Your task to perform on an android device: Go to Maps Image 0: 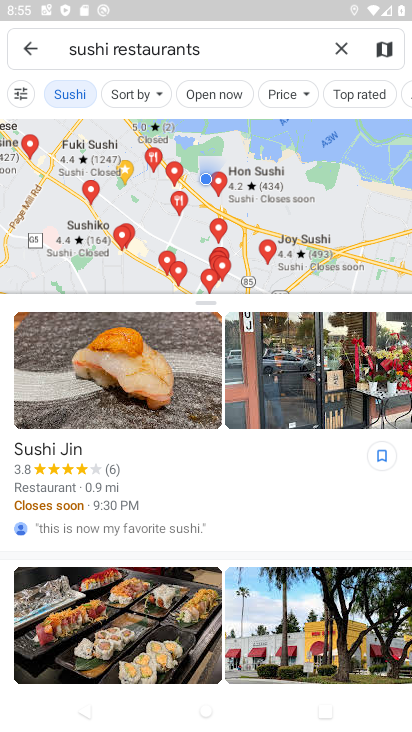
Step 0: press home button
Your task to perform on an android device: Go to Maps Image 1: 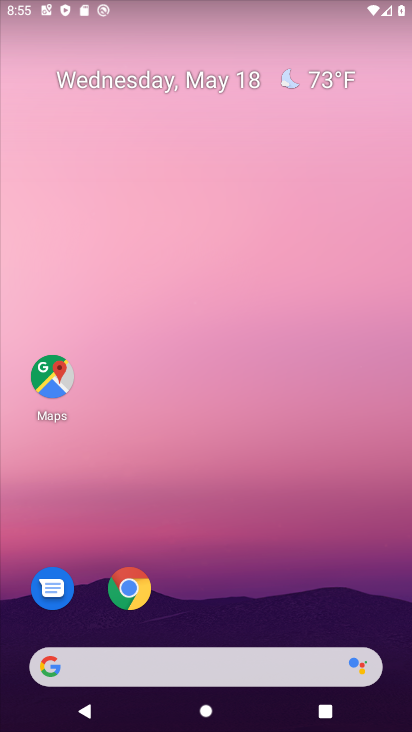
Step 1: drag from (343, 576) to (323, 149)
Your task to perform on an android device: Go to Maps Image 2: 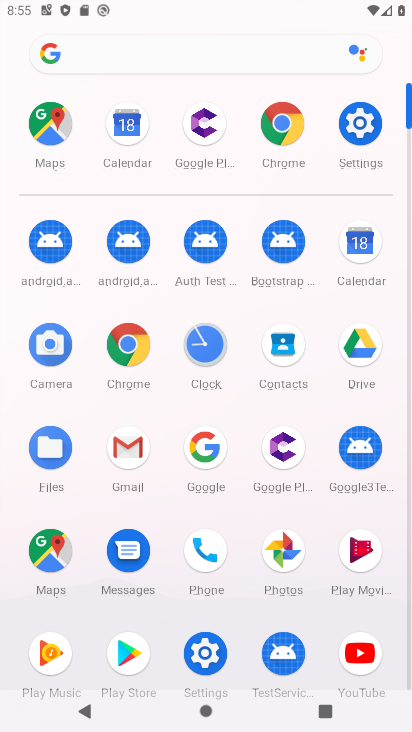
Step 2: click (50, 545)
Your task to perform on an android device: Go to Maps Image 3: 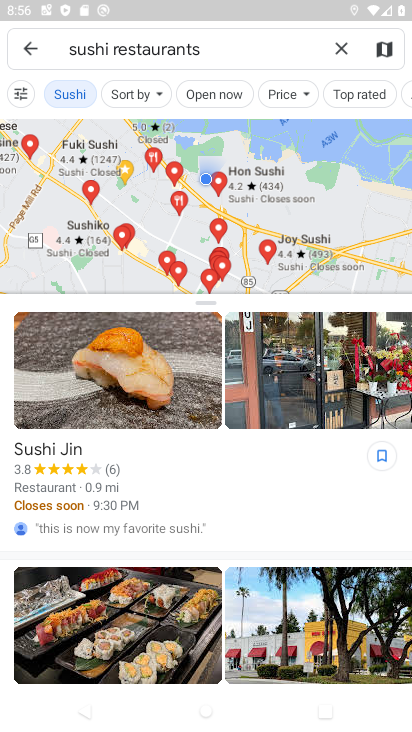
Step 3: task complete